Your task to perform on an android device: Open Chrome and go to the settings page Image 0: 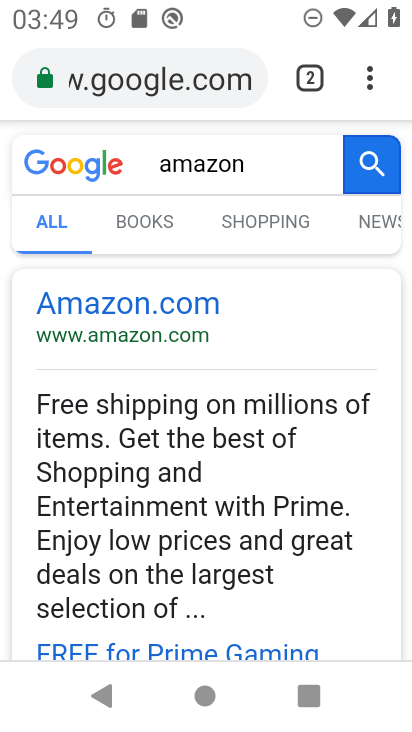
Step 0: press home button
Your task to perform on an android device: Open Chrome and go to the settings page Image 1: 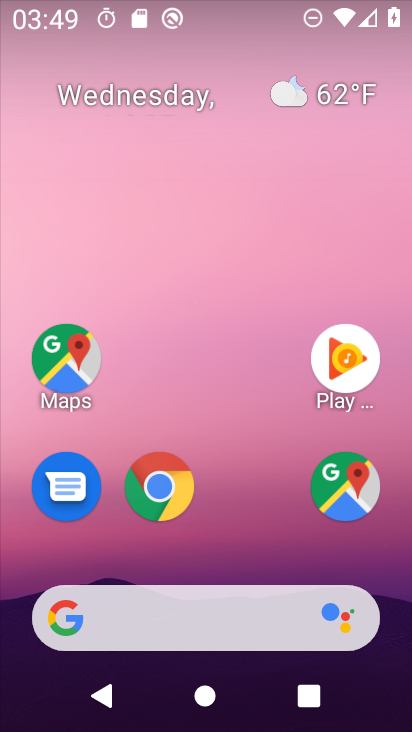
Step 1: drag from (280, 533) to (251, 41)
Your task to perform on an android device: Open Chrome and go to the settings page Image 2: 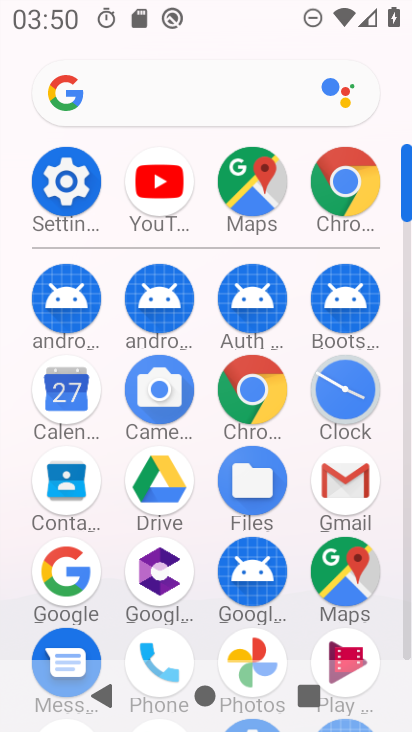
Step 2: click (264, 394)
Your task to perform on an android device: Open Chrome and go to the settings page Image 3: 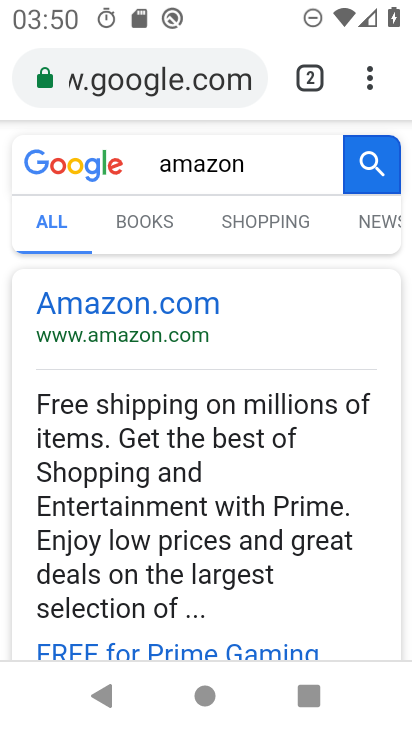
Step 3: click (370, 88)
Your task to perform on an android device: Open Chrome and go to the settings page Image 4: 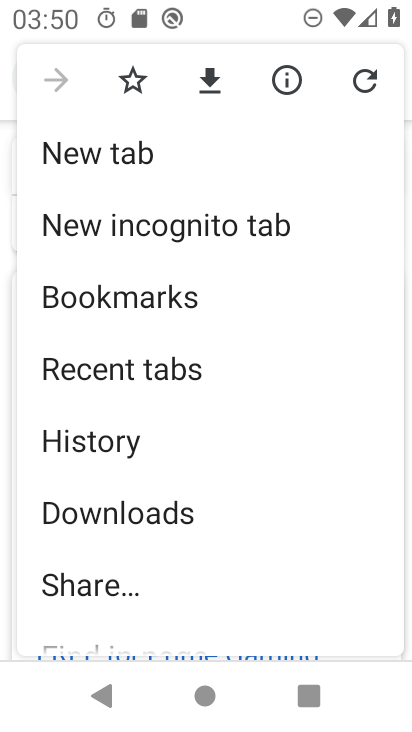
Step 4: drag from (313, 481) to (313, 334)
Your task to perform on an android device: Open Chrome and go to the settings page Image 5: 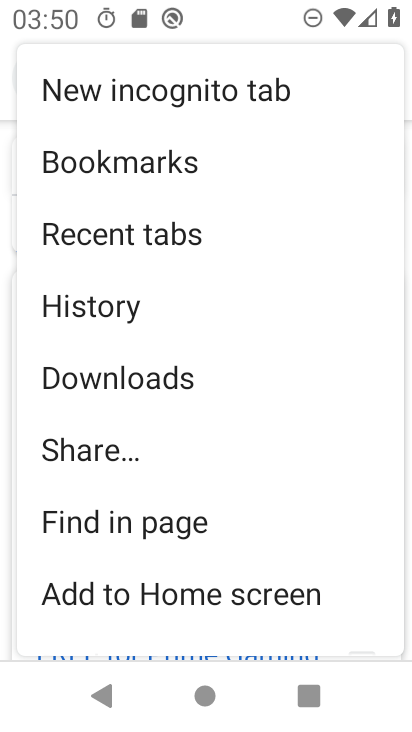
Step 5: drag from (306, 478) to (313, 375)
Your task to perform on an android device: Open Chrome and go to the settings page Image 6: 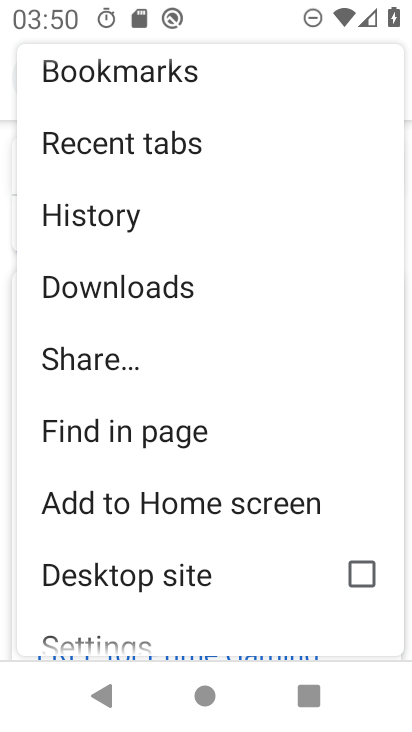
Step 6: drag from (269, 566) to (260, 435)
Your task to perform on an android device: Open Chrome and go to the settings page Image 7: 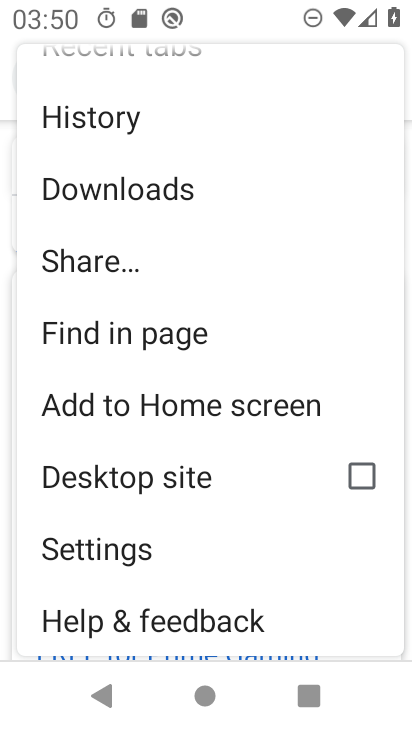
Step 7: drag from (246, 550) to (246, 428)
Your task to perform on an android device: Open Chrome and go to the settings page Image 8: 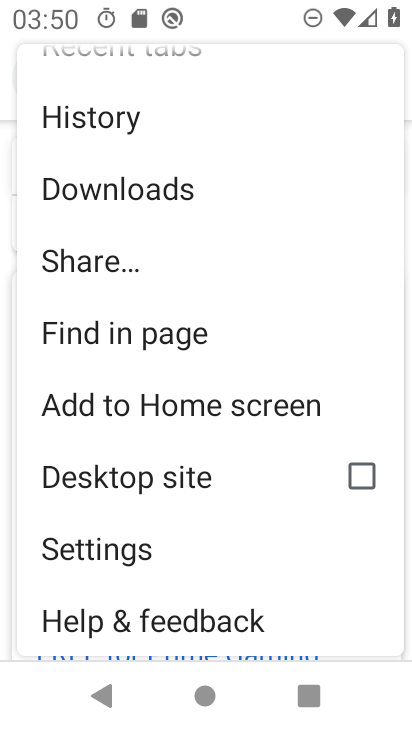
Step 8: click (162, 561)
Your task to perform on an android device: Open Chrome and go to the settings page Image 9: 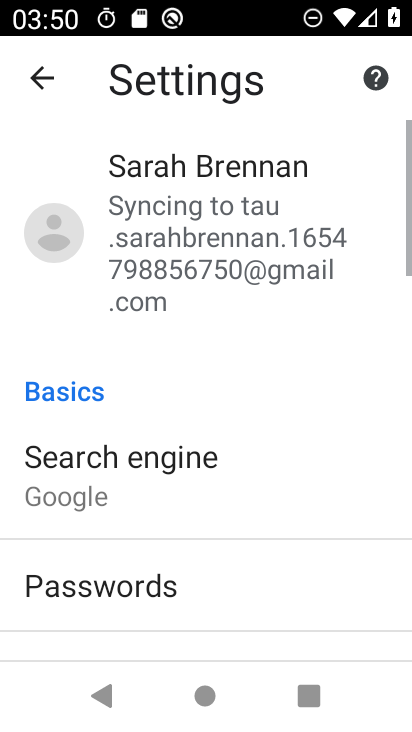
Step 9: task complete